Your task to perform on an android device: change alarm snooze length Image 0: 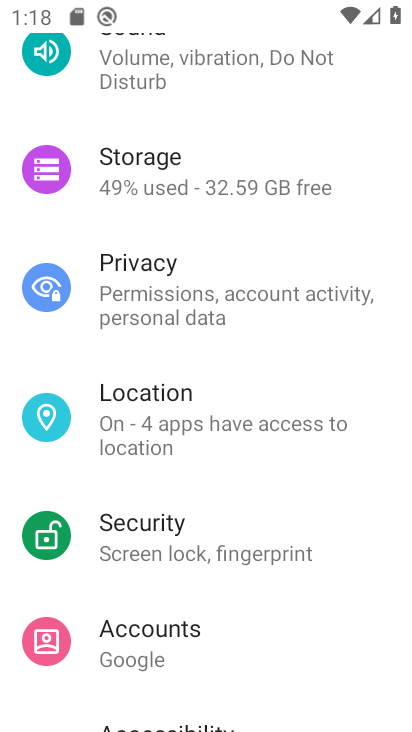
Step 0: drag from (229, 640) to (239, 76)
Your task to perform on an android device: change alarm snooze length Image 1: 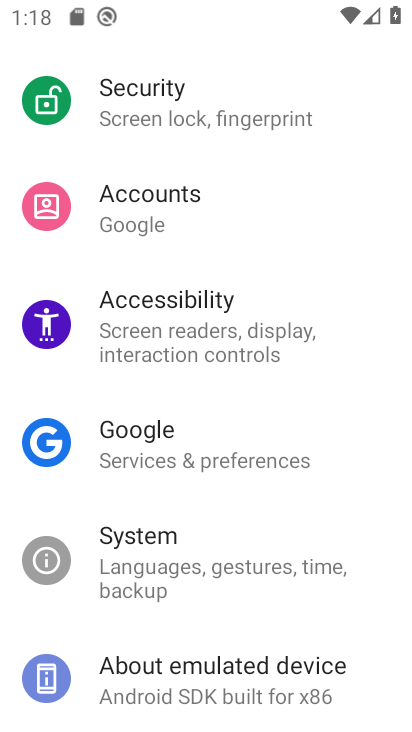
Step 1: press home button
Your task to perform on an android device: change alarm snooze length Image 2: 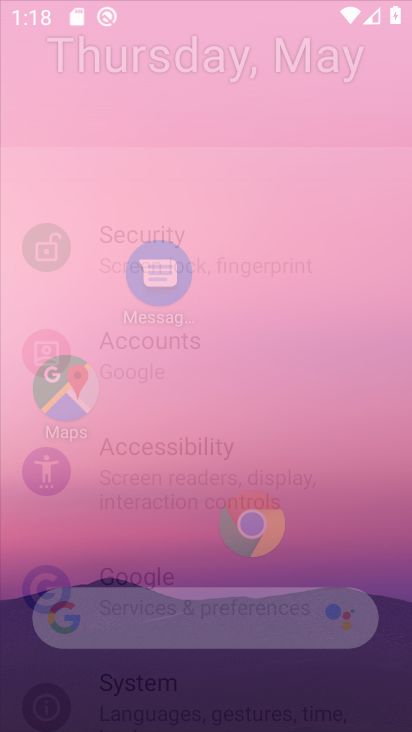
Step 2: drag from (191, 636) to (199, 34)
Your task to perform on an android device: change alarm snooze length Image 3: 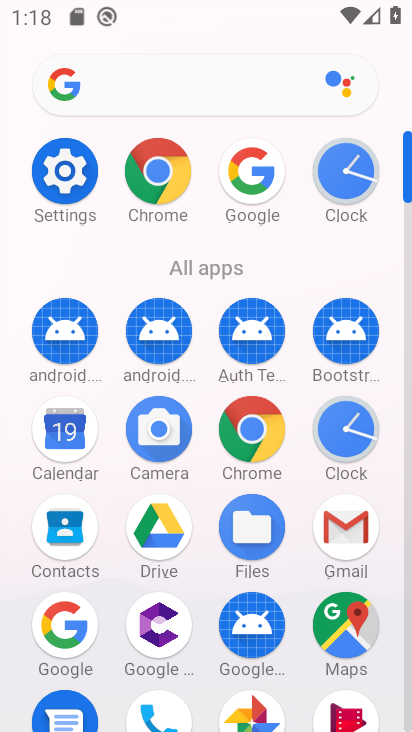
Step 3: click (351, 427)
Your task to perform on an android device: change alarm snooze length Image 4: 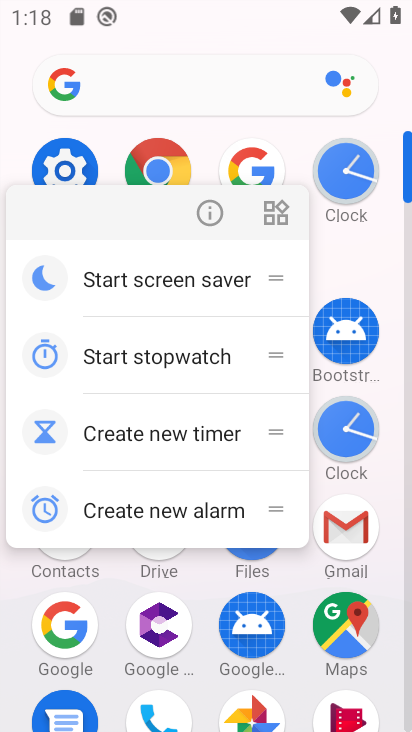
Step 4: click (203, 201)
Your task to perform on an android device: change alarm snooze length Image 5: 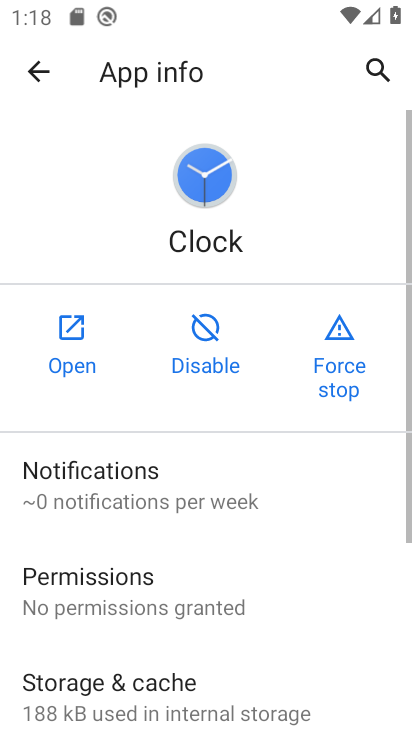
Step 5: click (70, 331)
Your task to perform on an android device: change alarm snooze length Image 6: 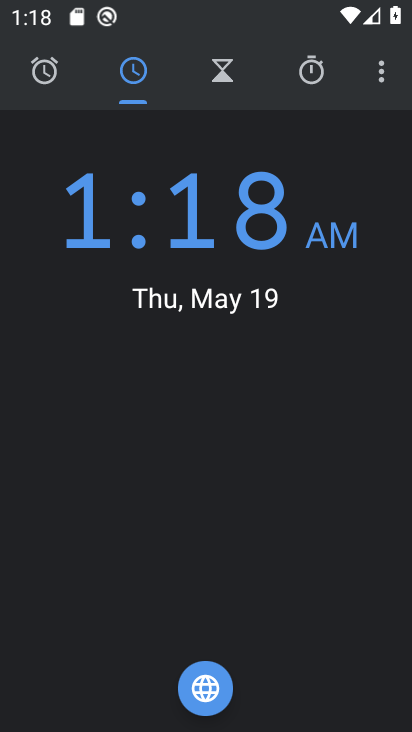
Step 6: click (370, 77)
Your task to perform on an android device: change alarm snooze length Image 7: 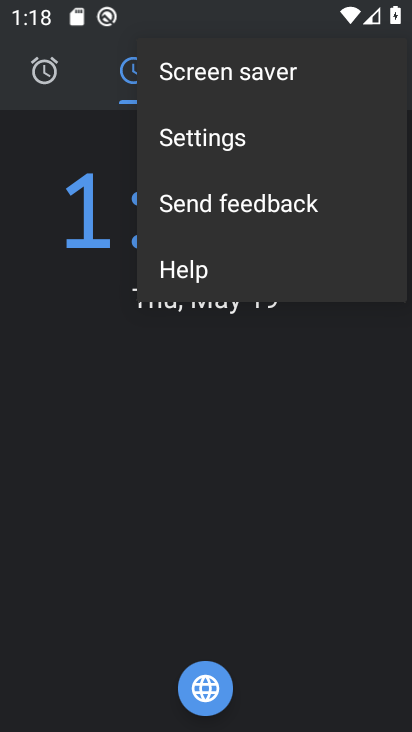
Step 7: click (211, 137)
Your task to perform on an android device: change alarm snooze length Image 8: 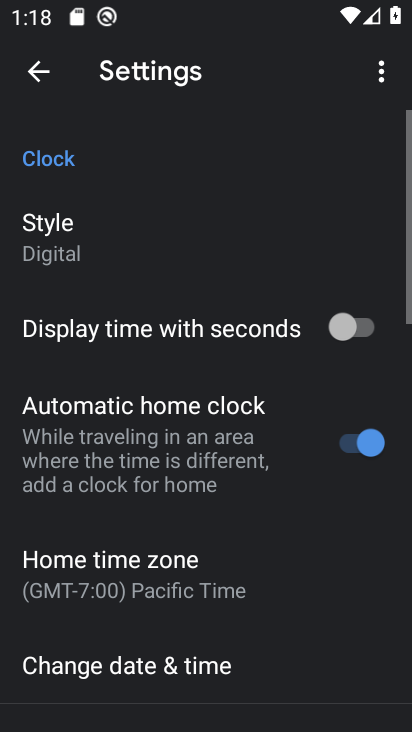
Step 8: drag from (210, 571) to (273, 161)
Your task to perform on an android device: change alarm snooze length Image 9: 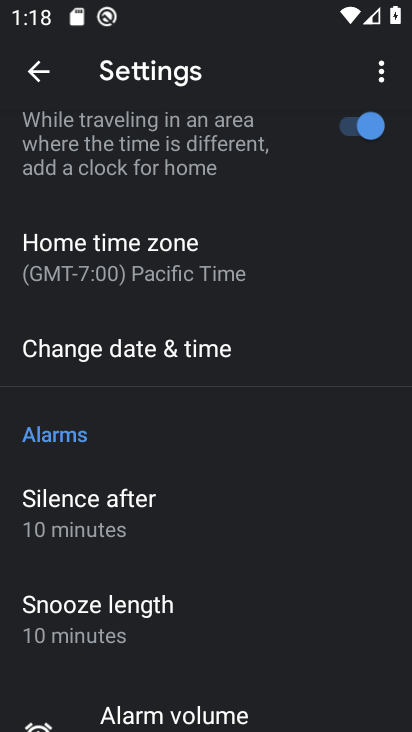
Step 9: click (189, 616)
Your task to perform on an android device: change alarm snooze length Image 10: 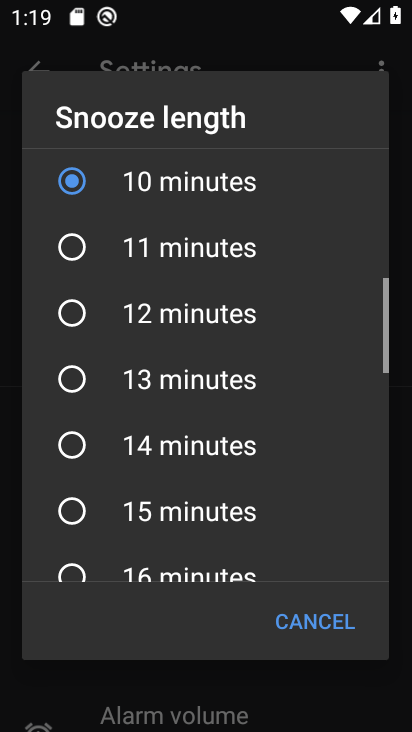
Step 10: drag from (186, 606) to (240, 243)
Your task to perform on an android device: change alarm snooze length Image 11: 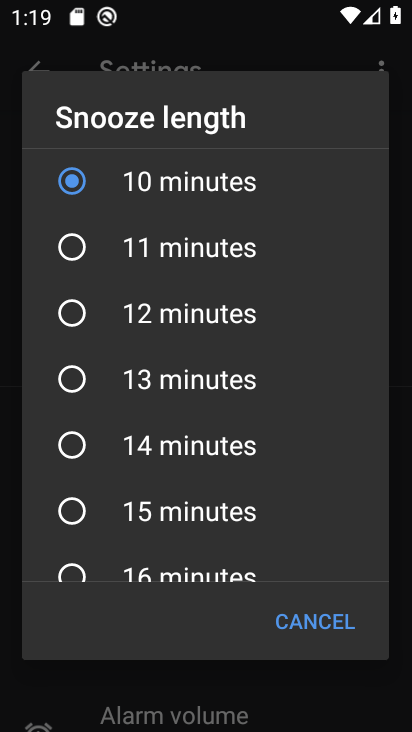
Step 11: drag from (213, 515) to (205, 232)
Your task to perform on an android device: change alarm snooze length Image 12: 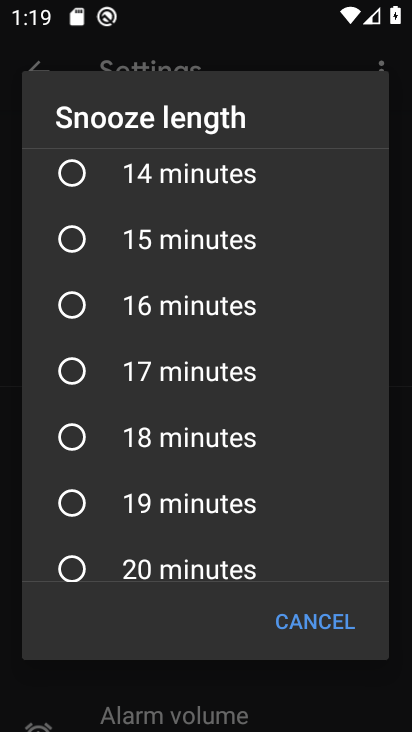
Step 12: click (89, 499)
Your task to perform on an android device: change alarm snooze length Image 13: 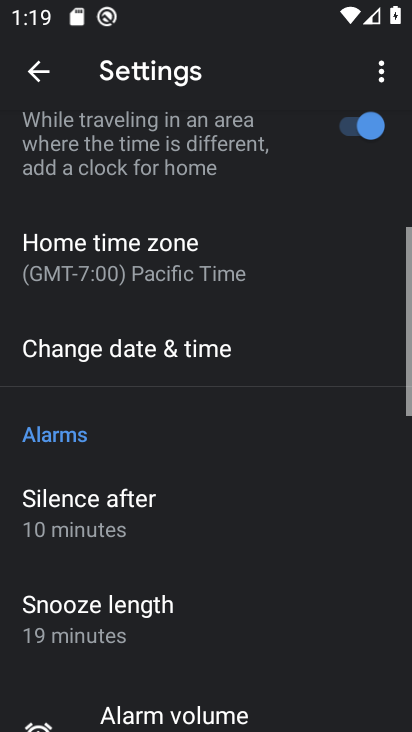
Step 13: task complete